Your task to perform on an android device: What's the weather? Image 0: 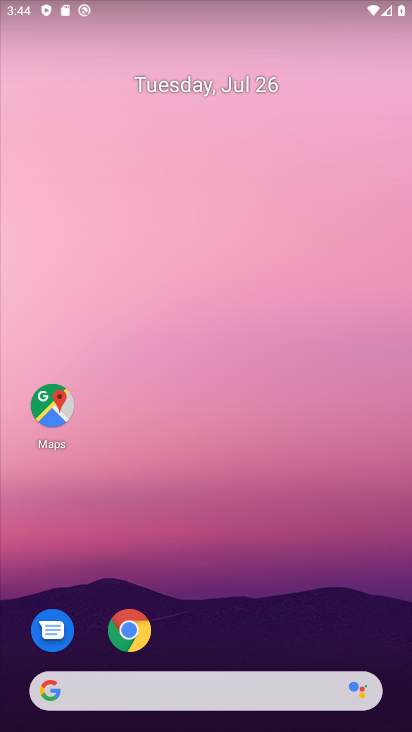
Step 0: drag from (261, 696) to (221, 155)
Your task to perform on an android device: What's the weather? Image 1: 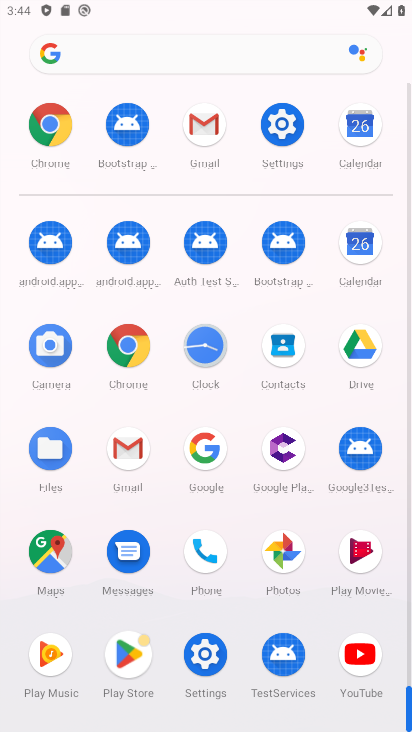
Step 1: drag from (281, 400) to (273, 74)
Your task to perform on an android device: What's the weather? Image 2: 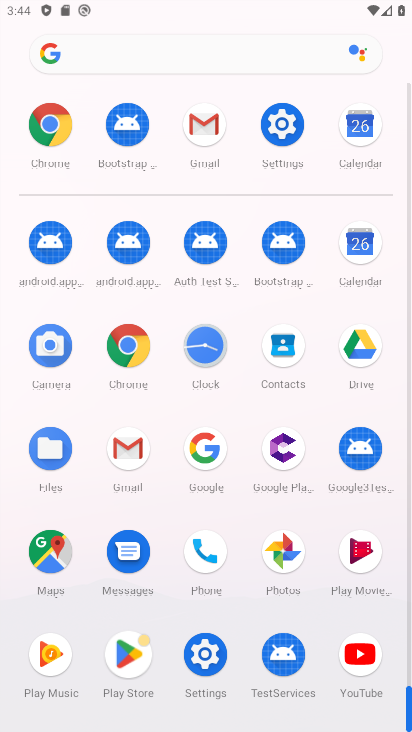
Step 2: click (59, 124)
Your task to perform on an android device: What's the weather? Image 3: 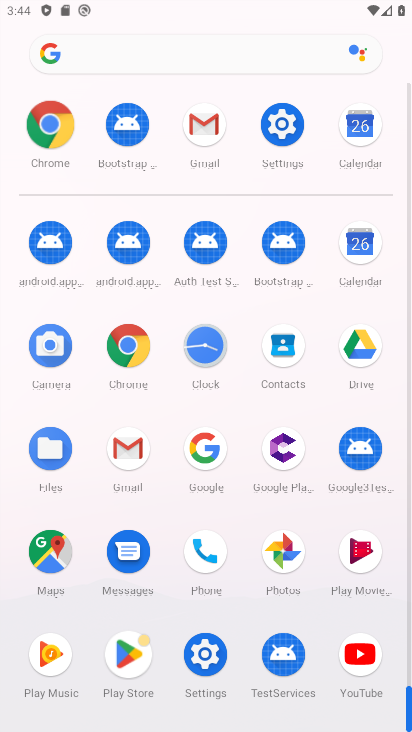
Step 3: click (57, 124)
Your task to perform on an android device: What's the weather? Image 4: 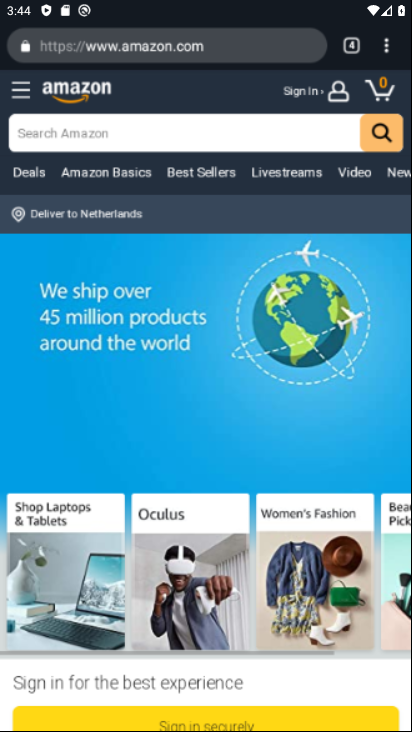
Step 4: click (59, 127)
Your task to perform on an android device: What's the weather? Image 5: 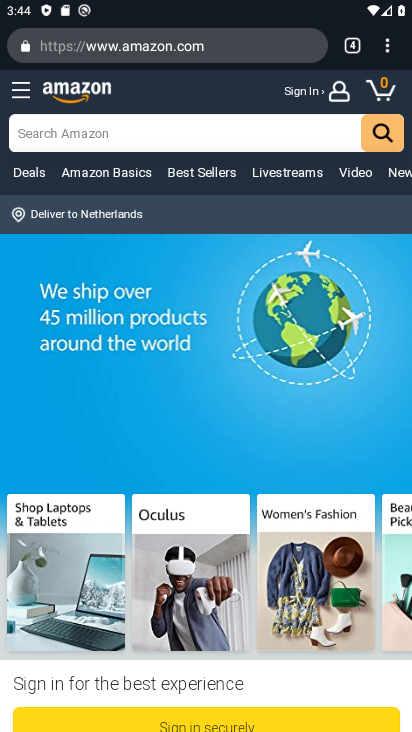
Step 5: drag from (394, 46) to (220, 89)
Your task to perform on an android device: What's the weather? Image 6: 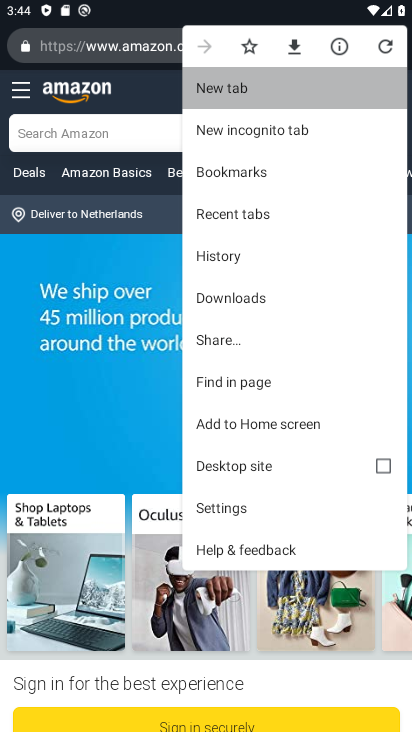
Step 6: click (229, 85)
Your task to perform on an android device: What's the weather? Image 7: 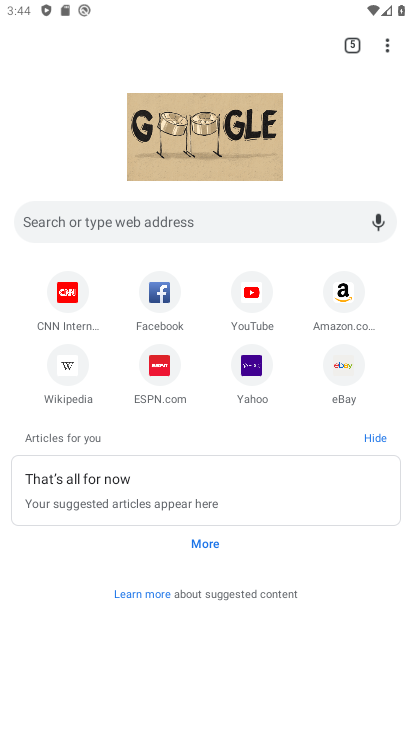
Step 7: click (56, 218)
Your task to perform on an android device: What's the weather? Image 8: 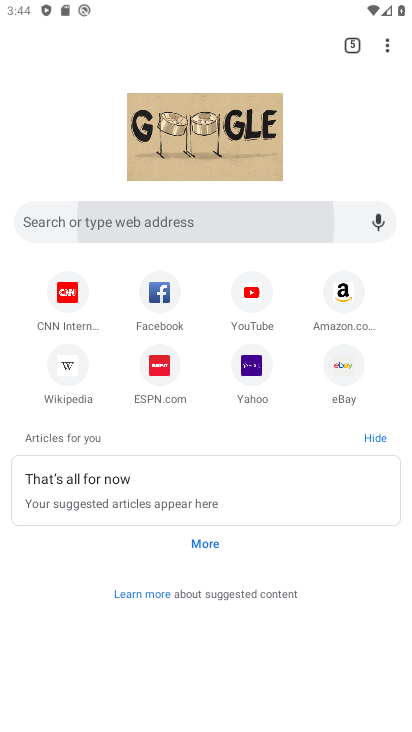
Step 8: click (58, 218)
Your task to perform on an android device: What's the weather? Image 9: 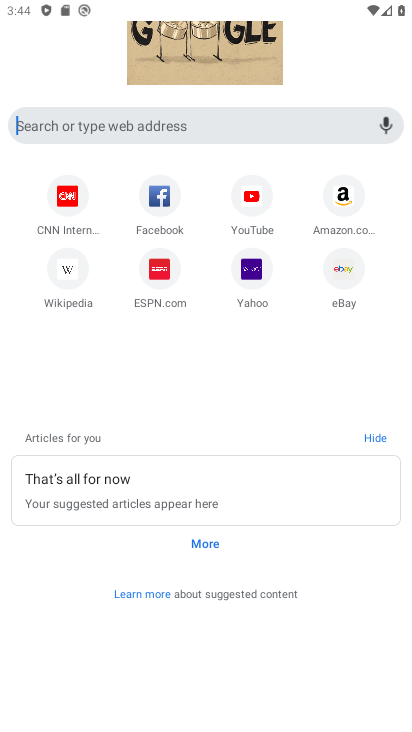
Step 9: click (58, 218)
Your task to perform on an android device: What's the weather? Image 10: 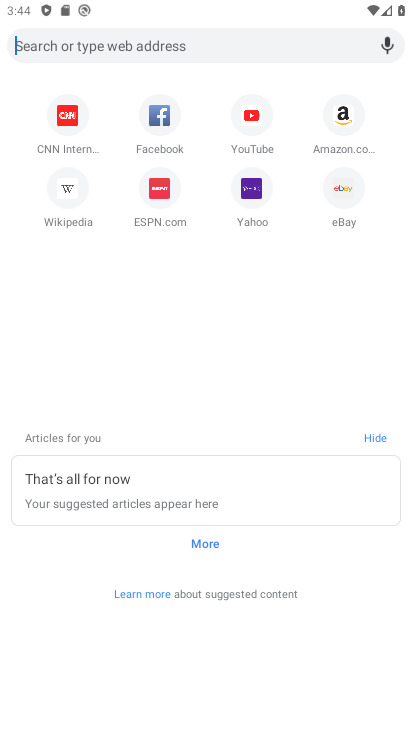
Step 10: click (58, 218)
Your task to perform on an android device: What's the weather? Image 11: 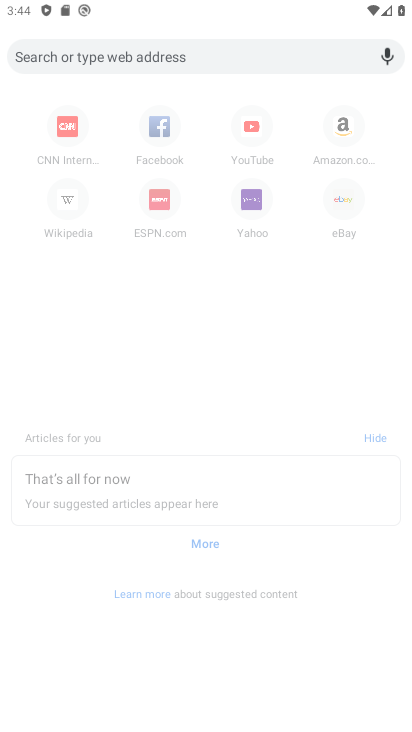
Step 11: click (59, 218)
Your task to perform on an android device: What's the weather? Image 12: 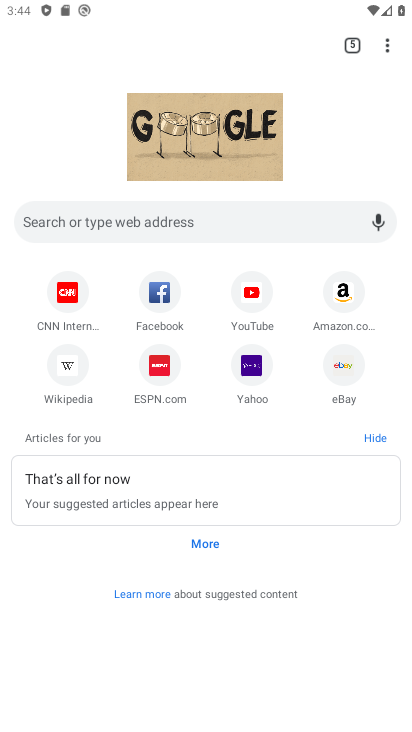
Step 12: click (46, 212)
Your task to perform on an android device: What's the weather? Image 13: 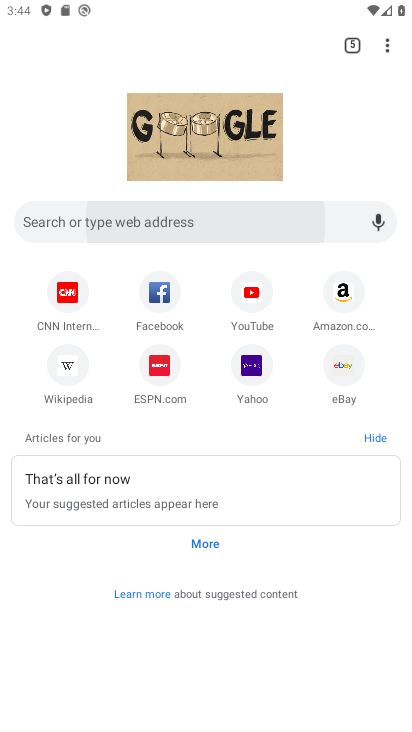
Step 13: click (46, 212)
Your task to perform on an android device: What's the weather? Image 14: 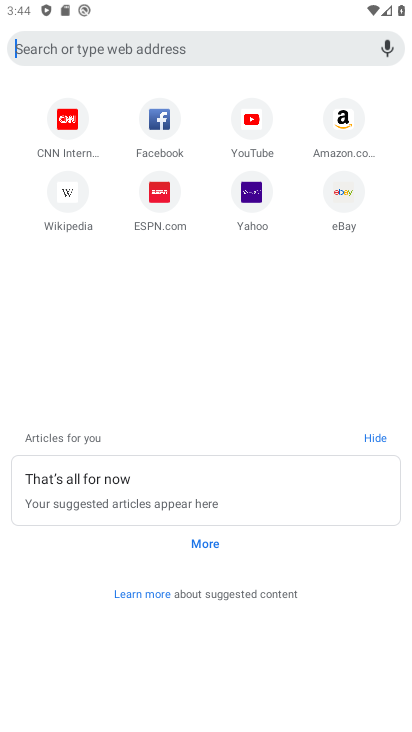
Step 14: click (46, 212)
Your task to perform on an android device: What's the weather? Image 15: 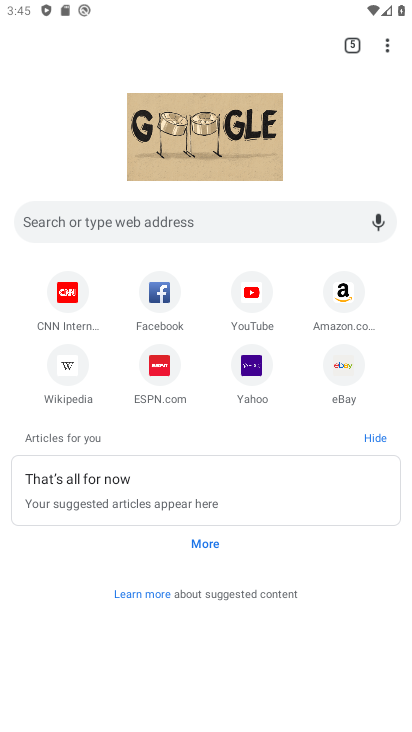
Step 15: click (36, 219)
Your task to perform on an android device: What's the weather? Image 16: 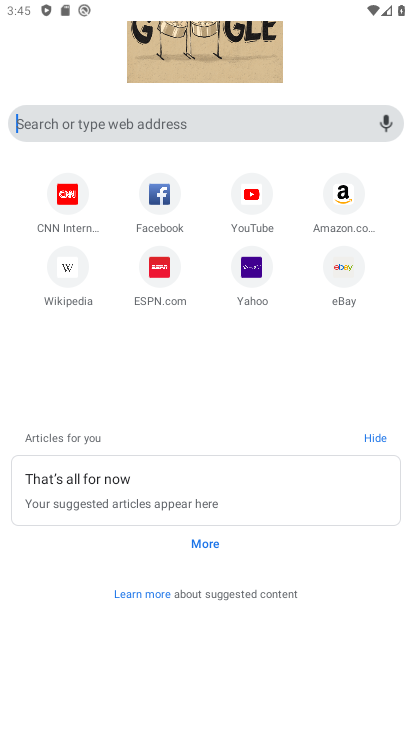
Step 16: click (37, 218)
Your task to perform on an android device: What's the weather? Image 17: 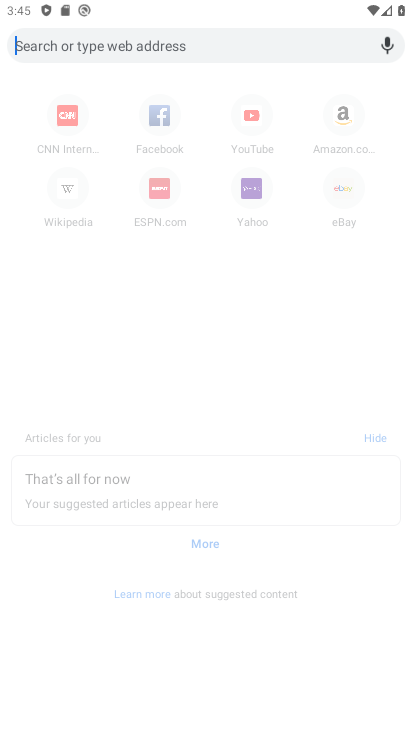
Step 17: click (37, 218)
Your task to perform on an android device: What's the weather? Image 18: 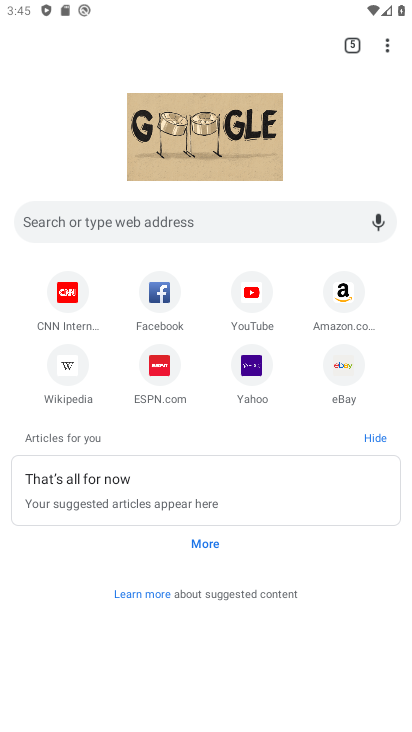
Step 18: click (31, 216)
Your task to perform on an android device: What's the weather? Image 19: 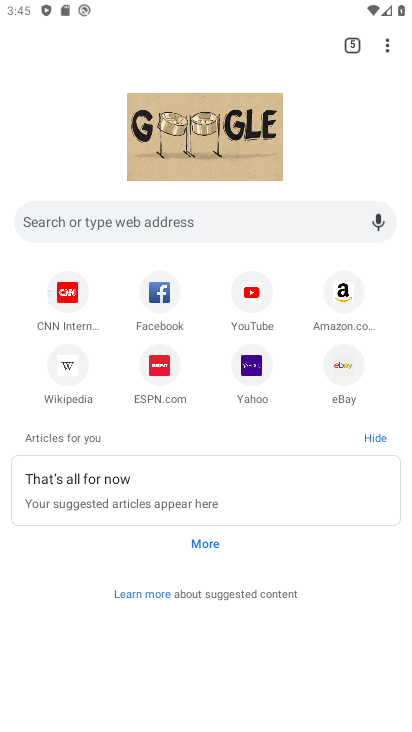
Step 19: click (31, 216)
Your task to perform on an android device: What's the weather? Image 20: 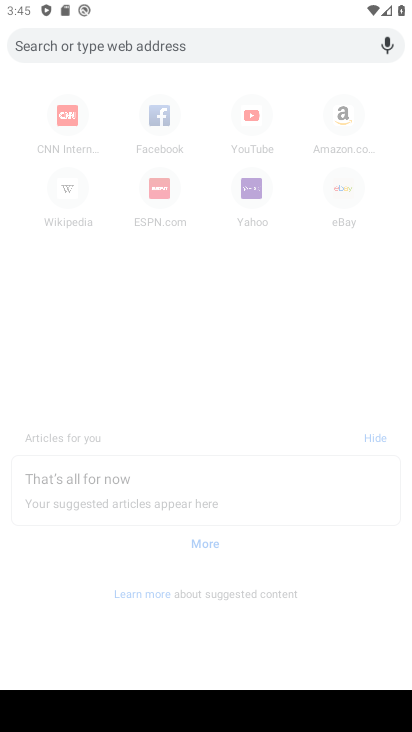
Step 20: type "weather"
Your task to perform on an android device: What's the weather? Image 21: 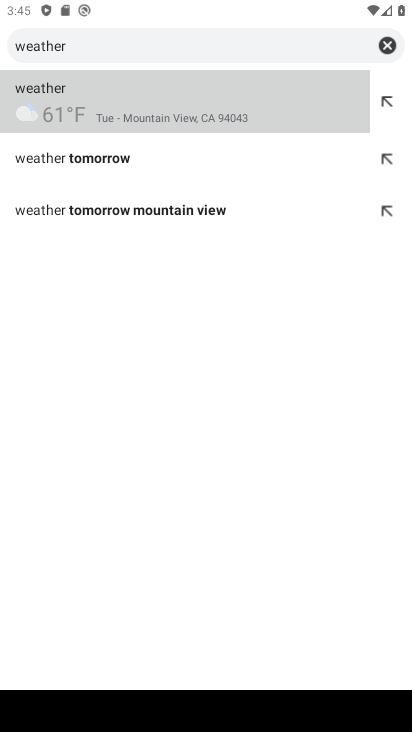
Step 21: click (88, 97)
Your task to perform on an android device: What's the weather? Image 22: 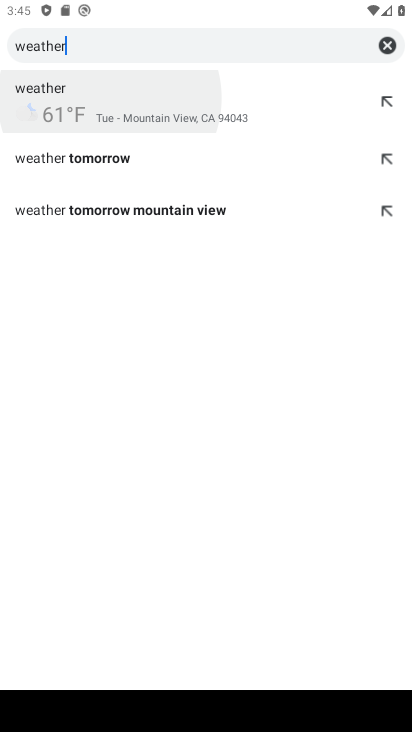
Step 22: click (88, 97)
Your task to perform on an android device: What's the weather? Image 23: 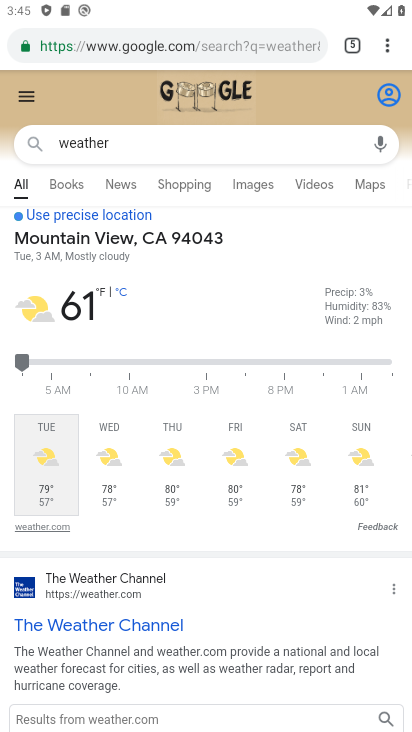
Step 23: task complete